Your task to perform on an android device: turn on translation in the chrome app Image 0: 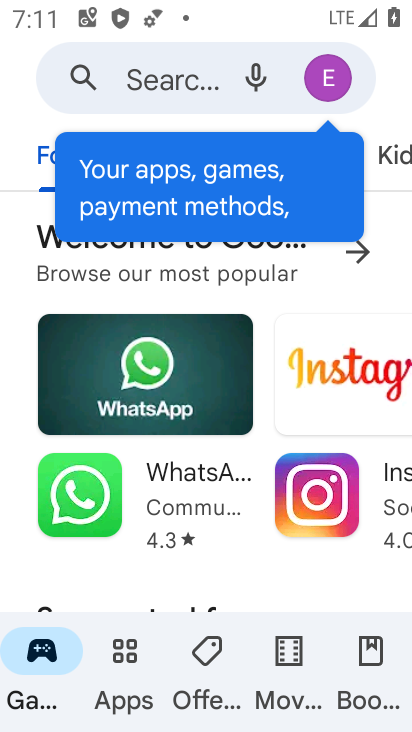
Step 0: press back button
Your task to perform on an android device: turn on translation in the chrome app Image 1: 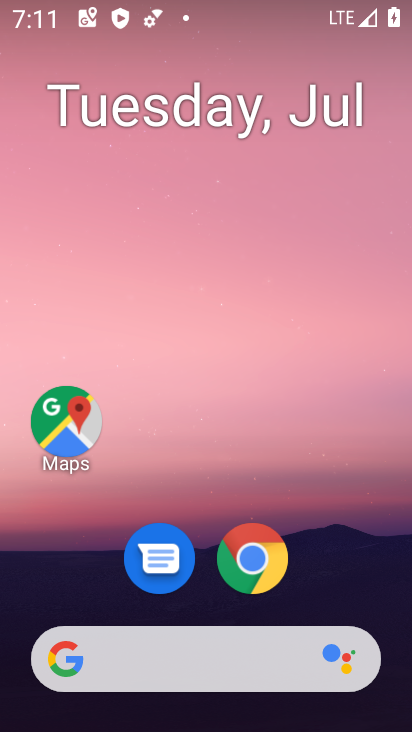
Step 1: click (276, 562)
Your task to perform on an android device: turn on translation in the chrome app Image 2: 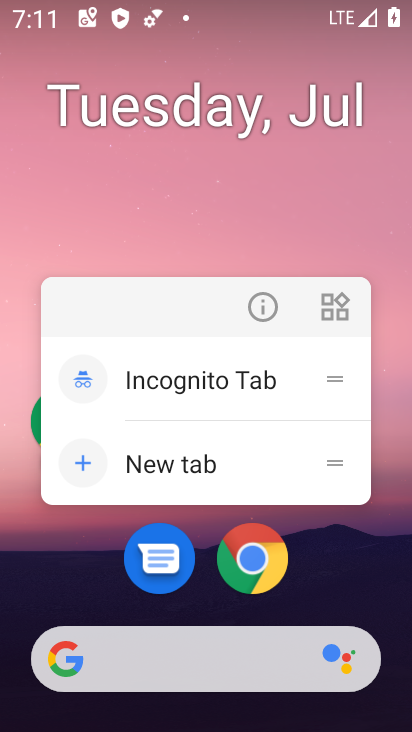
Step 2: click (253, 556)
Your task to perform on an android device: turn on translation in the chrome app Image 3: 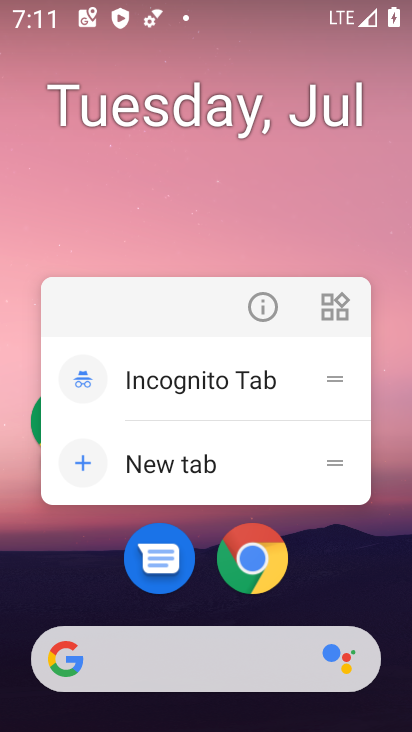
Step 3: click (263, 565)
Your task to perform on an android device: turn on translation in the chrome app Image 4: 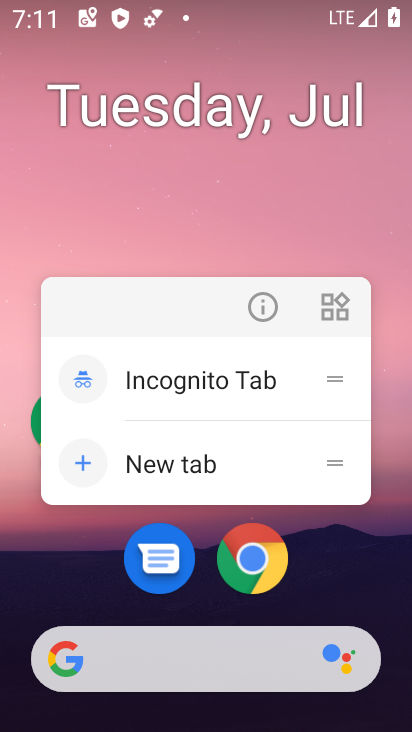
Step 4: click (258, 551)
Your task to perform on an android device: turn on translation in the chrome app Image 5: 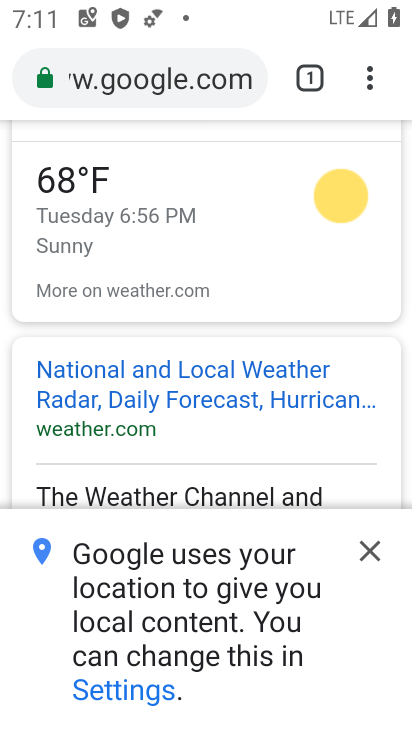
Step 5: drag from (378, 76) to (133, 620)
Your task to perform on an android device: turn on translation in the chrome app Image 6: 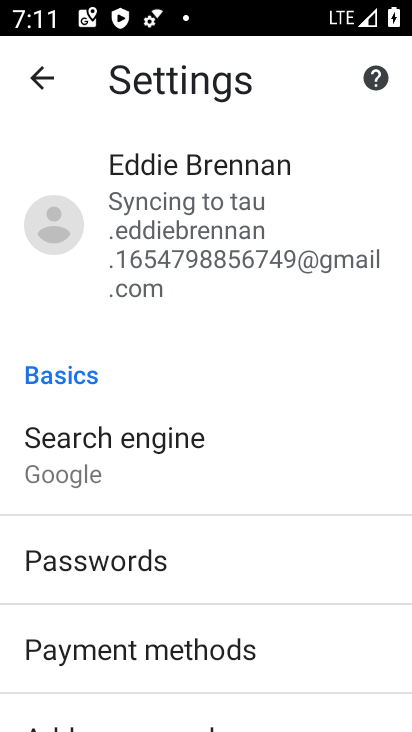
Step 6: drag from (178, 683) to (285, 124)
Your task to perform on an android device: turn on translation in the chrome app Image 7: 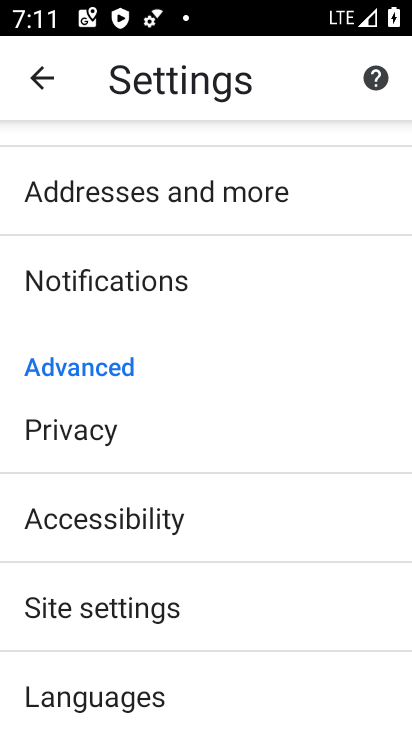
Step 7: click (158, 698)
Your task to perform on an android device: turn on translation in the chrome app Image 8: 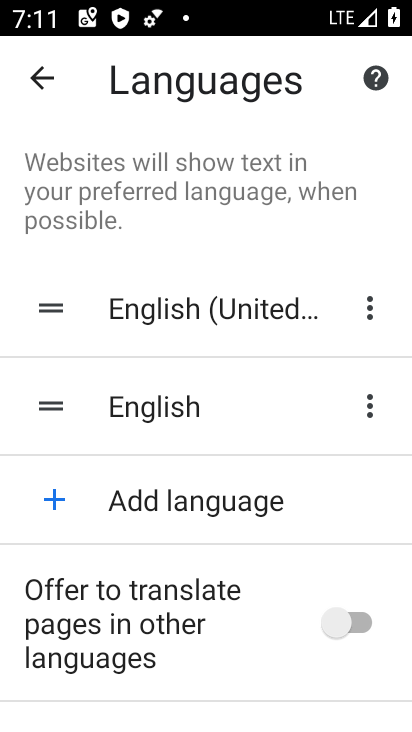
Step 8: click (338, 615)
Your task to perform on an android device: turn on translation in the chrome app Image 9: 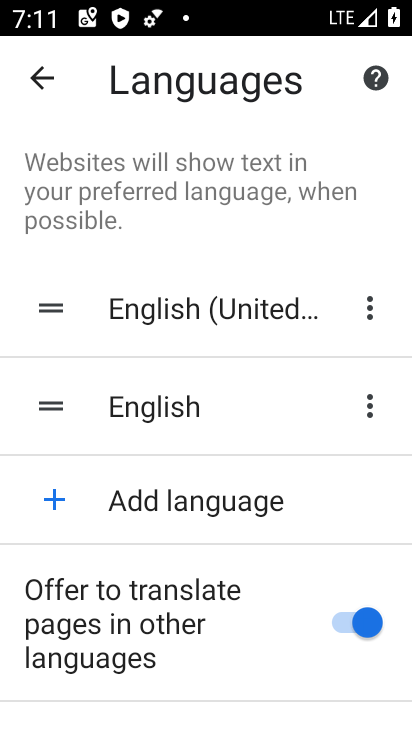
Step 9: task complete